Your task to perform on an android device: Find coffee shops on Maps Image 0: 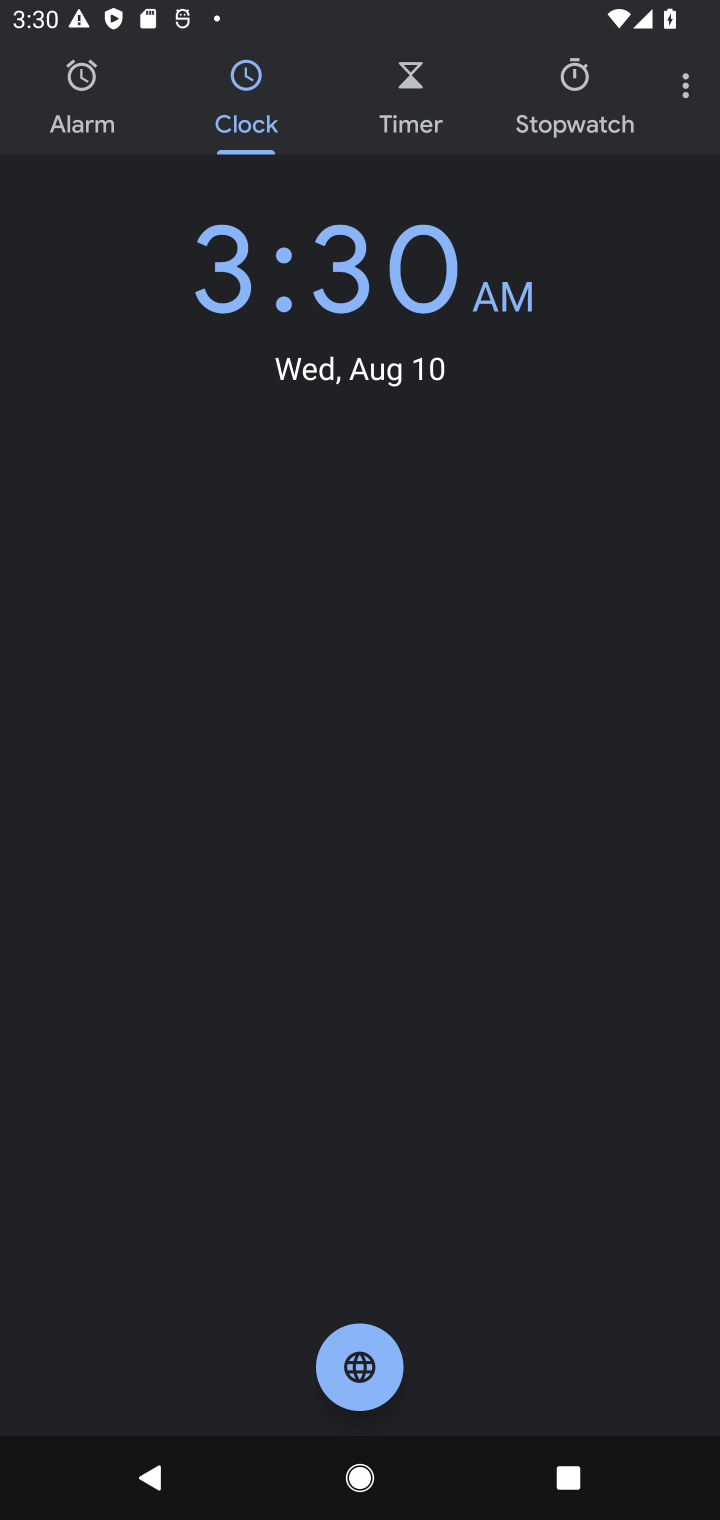
Step 0: press home button
Your task to perform on an android device: Find coffee shops on Maps Image 1: 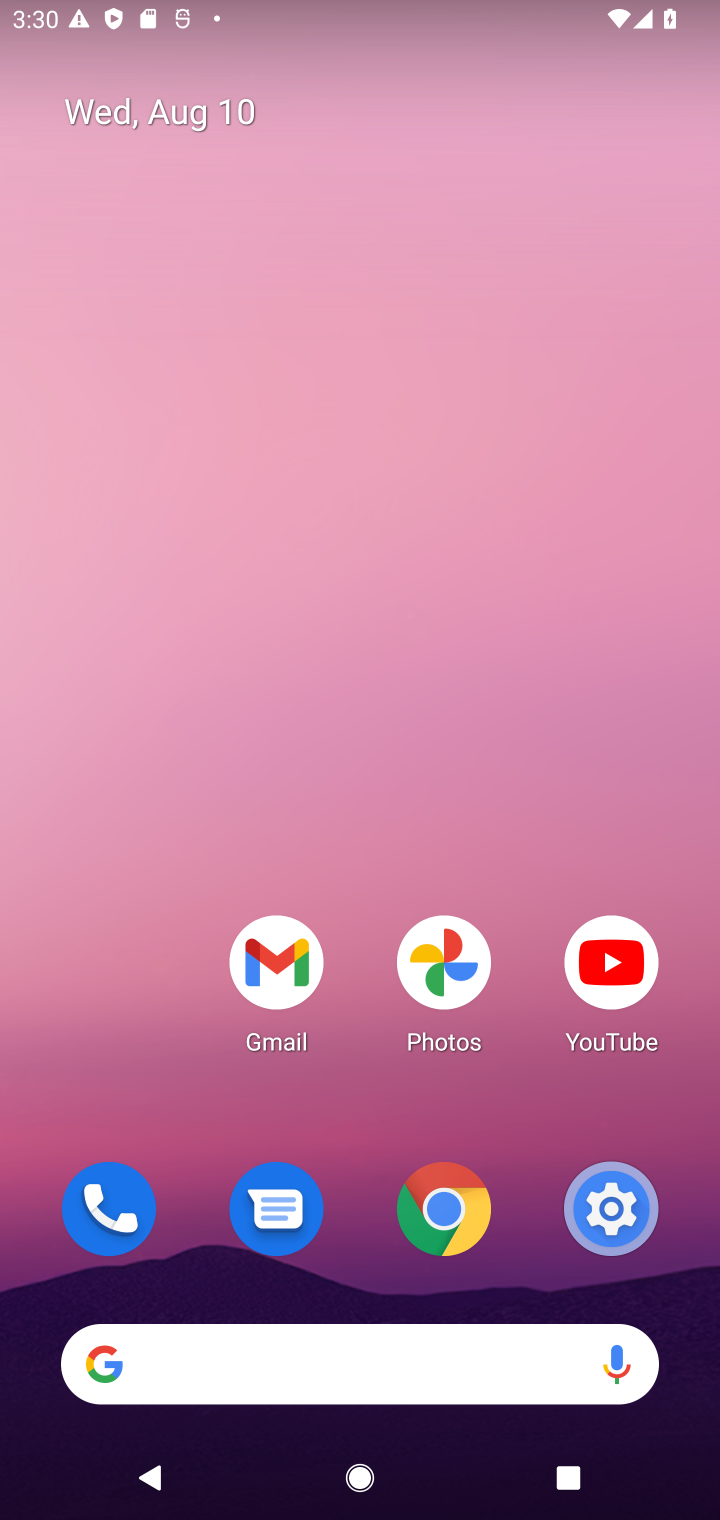
Step 1: drag from (368, 867) to (331, 10)
Your task to perform on an android device: Find coffee shops on Maps Image 2: 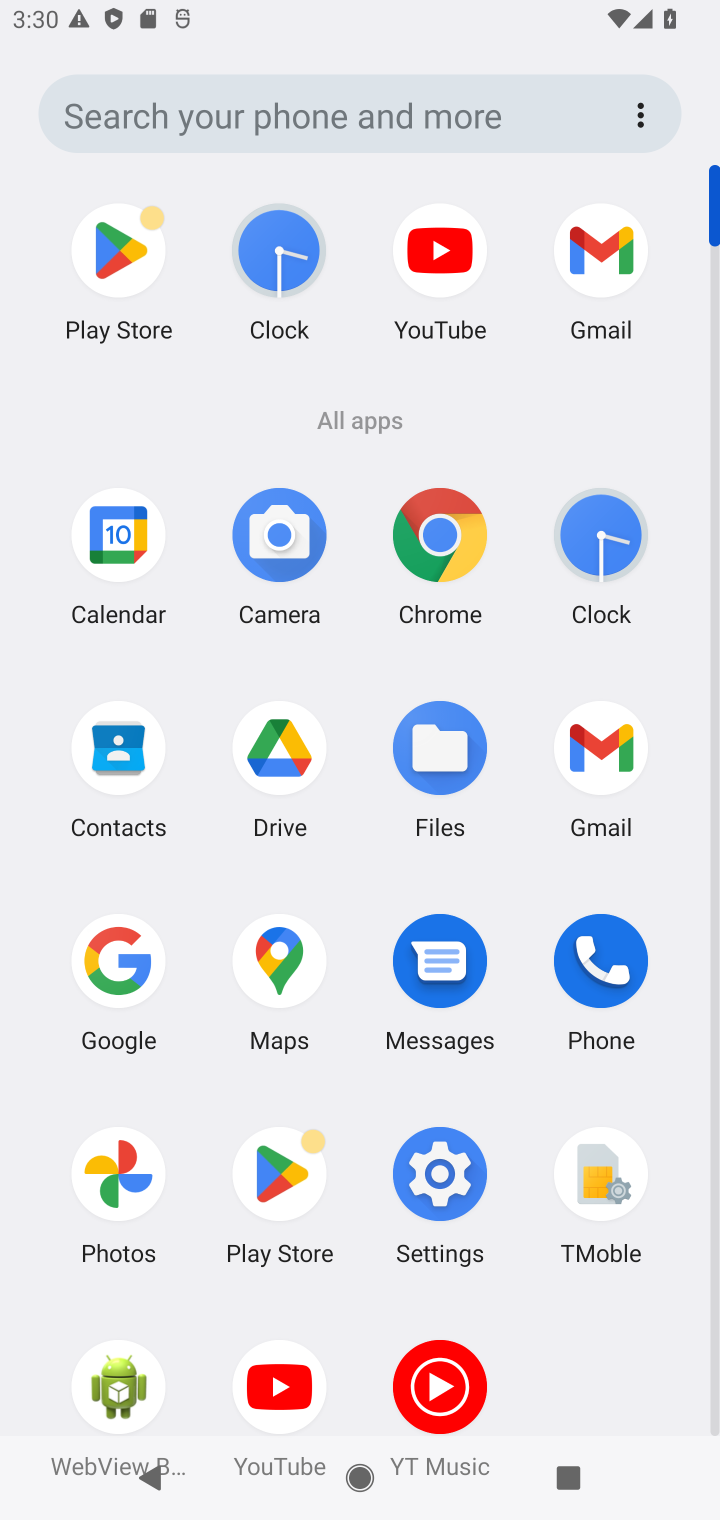
Step 2: click (281, 951)
Your task to perform on an android device: Find coffee shops on Maps Image 3: 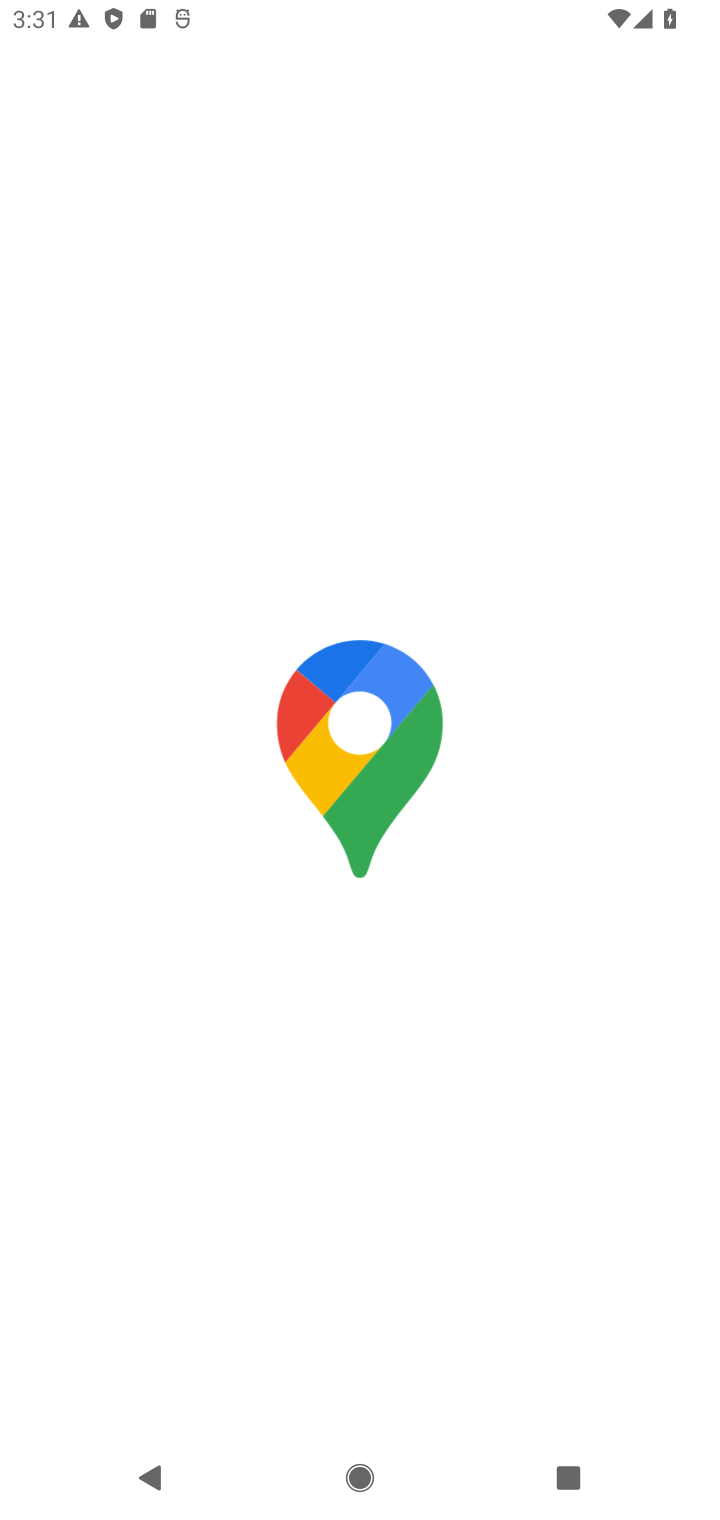
Step 3: press back button
Your task to perform on an android device: Find coffee shops on Maps Image 4: 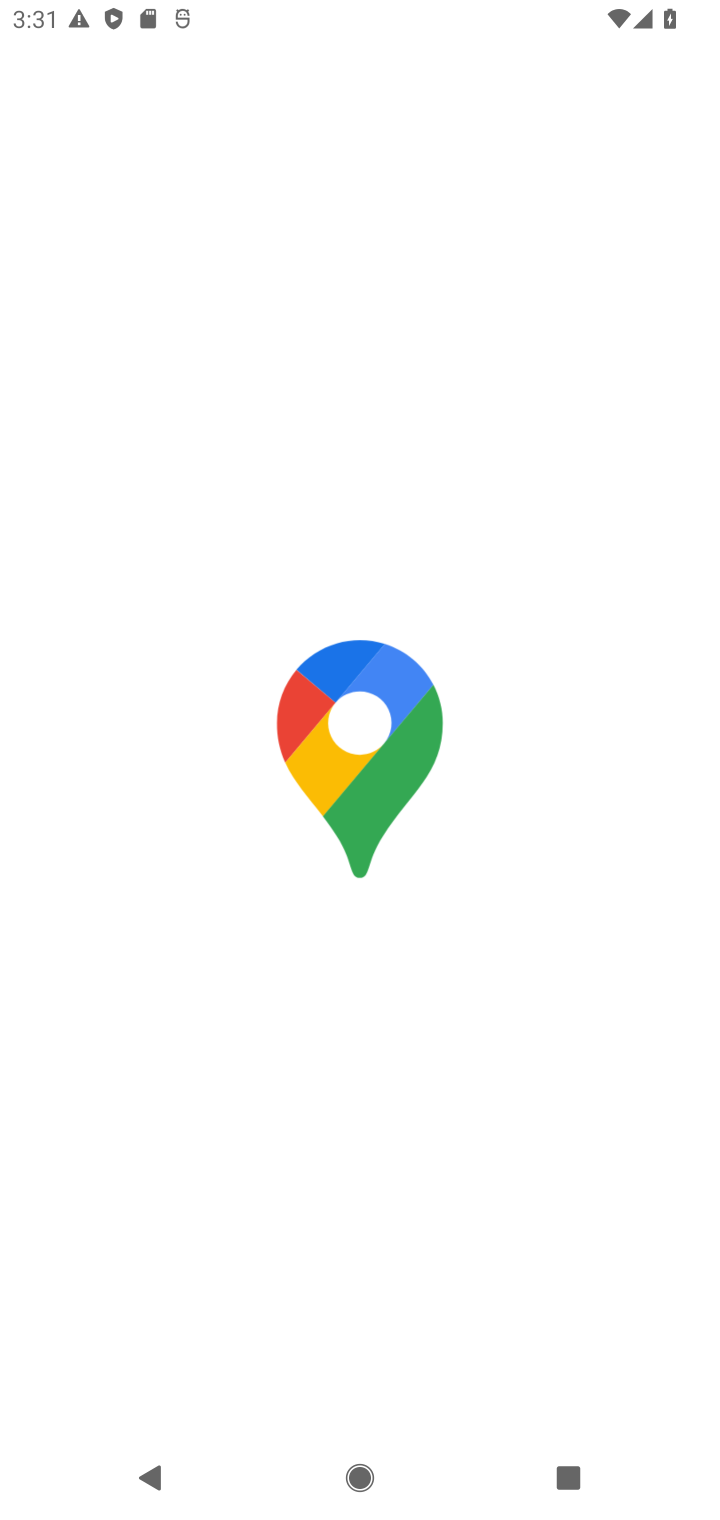
Step 4: press back button
Your task to perform on an android device: Find coffee shops on Maps Image 5: 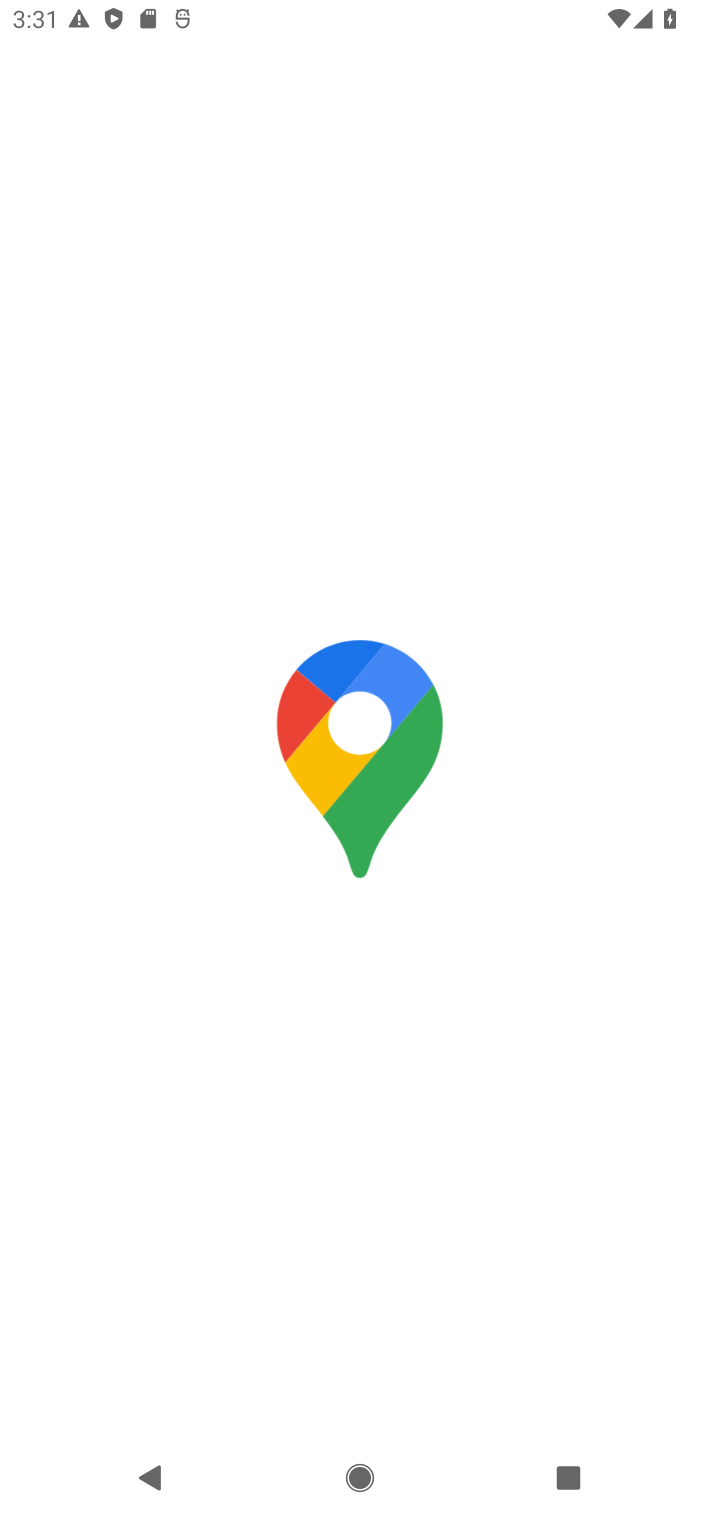
Step 5: press back button
Your task to perform on an android device: Find coffee shops on Maps Image 6: 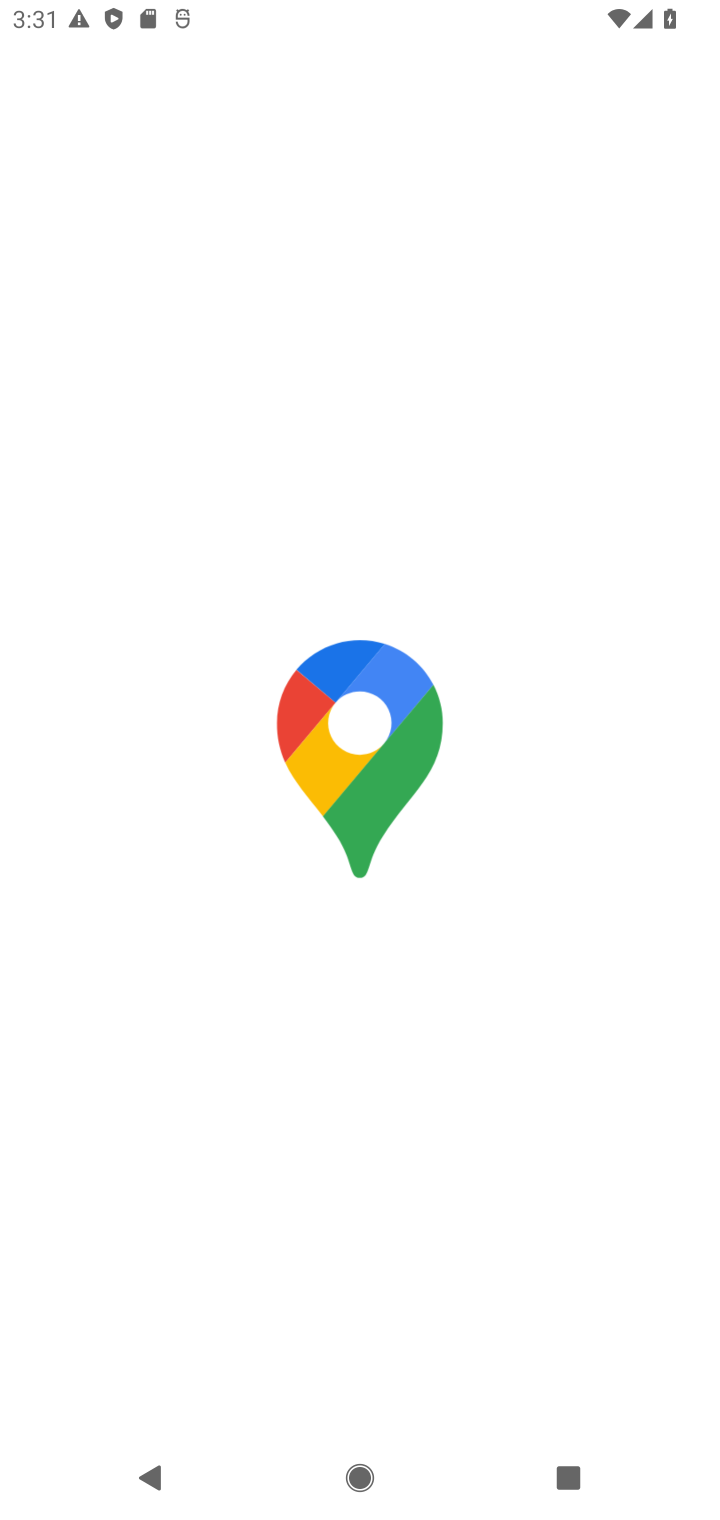
Step 6: press home button
Your task to perform on an android device: Find coffee shops on Maps Image 7: 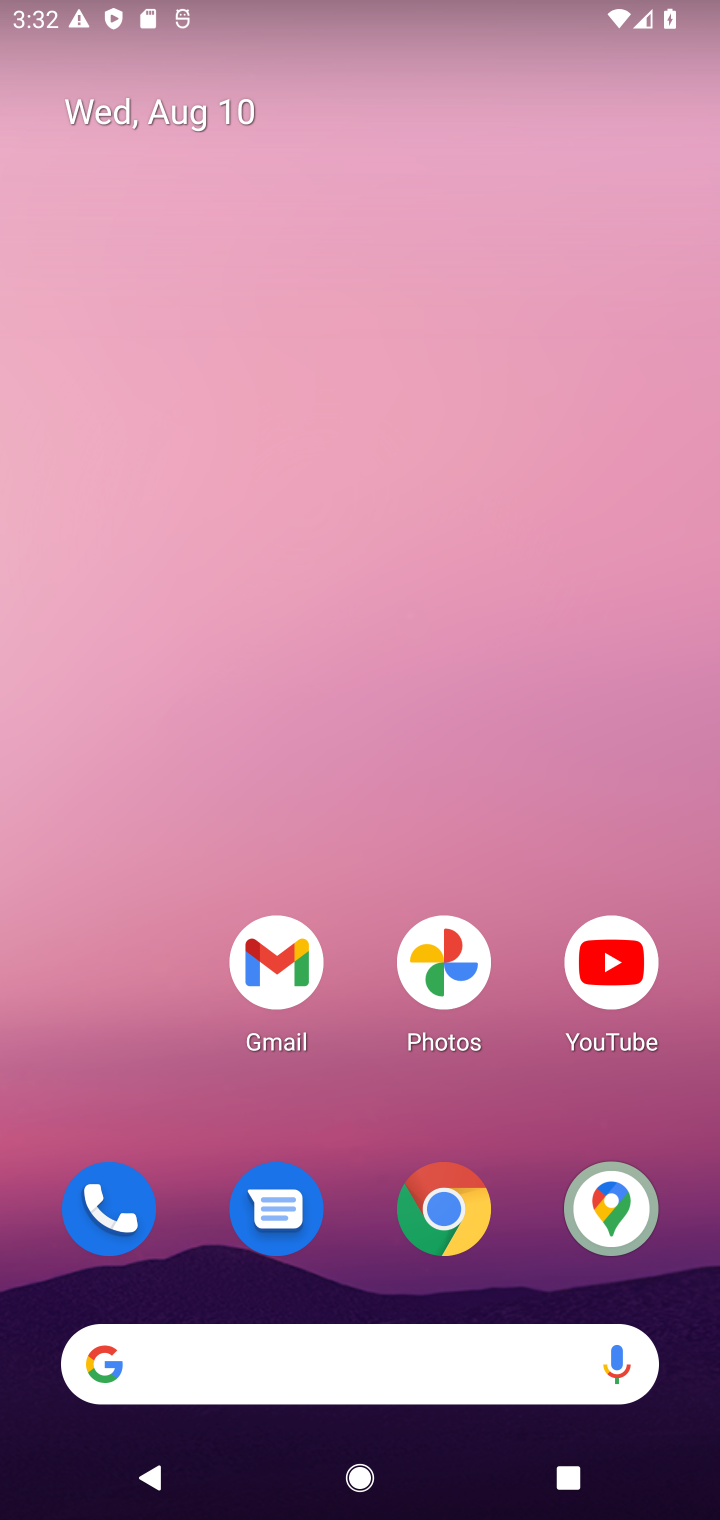
Step 7: click (595, 1206)
Your task to perform on an android device: Find coffee shops on Maps Image 8: 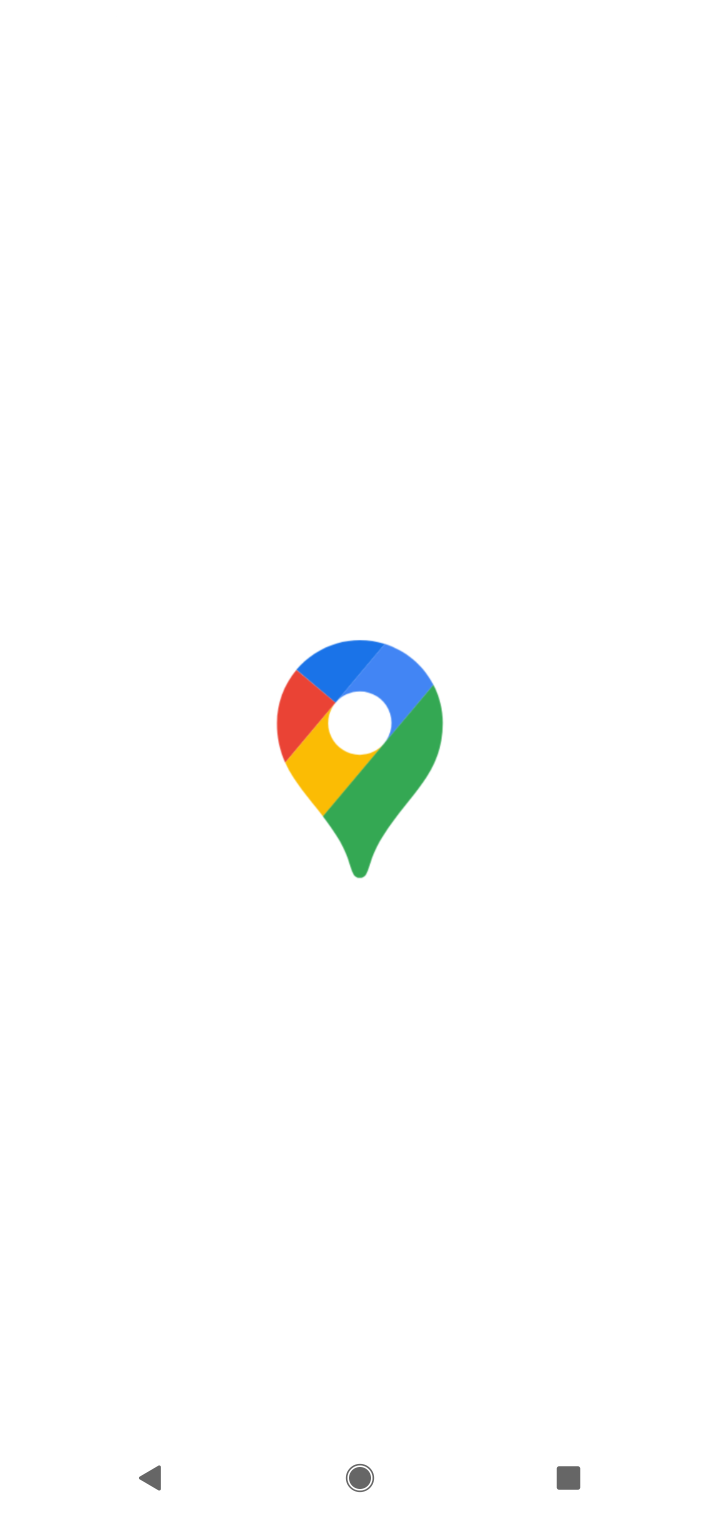
Step 8: task complete